Your task to perform on an android device: delete browsing data in the chrome app Image 0: 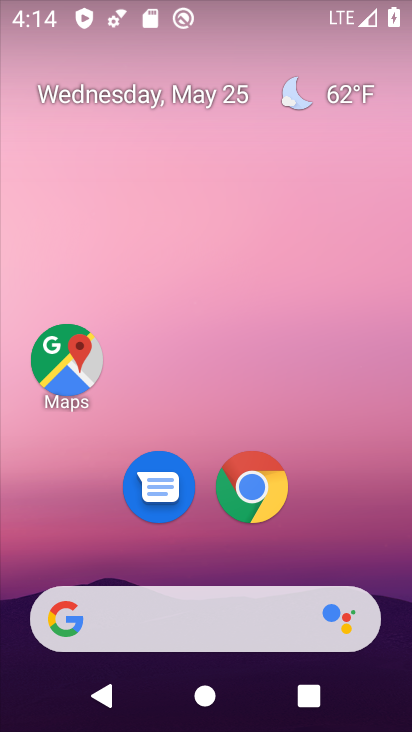
Step 0: click (266, 485)
Your task to perform on an android device: delete browsing data in the chrome app Image 1: 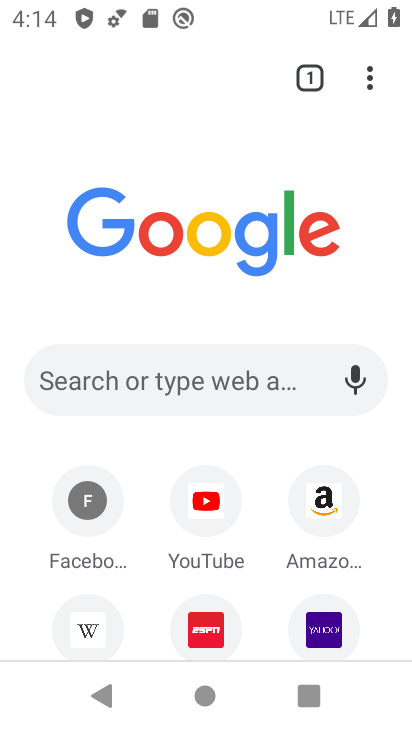
Step 1: click (377, 84)
Your task to perform on an android device: delete browsing data in the chrome app Image 2: 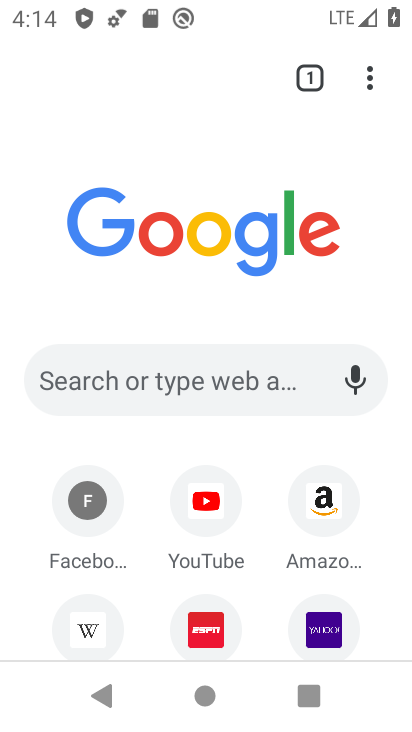
Step 2: click (375, 88)
Your task to perform on an android device: delete browsing data in the chrome app Image 3: 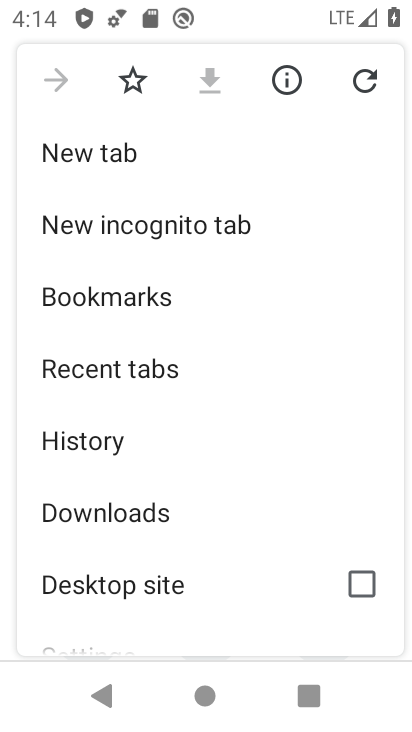
Step 3: click (179, 481)
Your task to perform on an android device: delete browsing data in the chrome app Image 4: 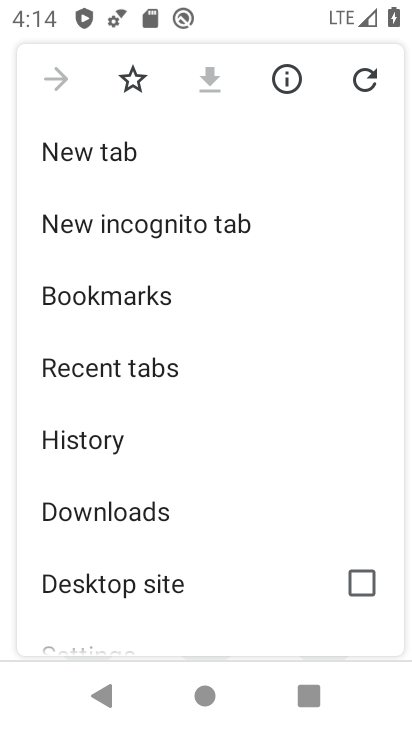
Step 4: click (144, 446)
Your task to perform on an android device: delete browsing data in the chrome app Image 5: 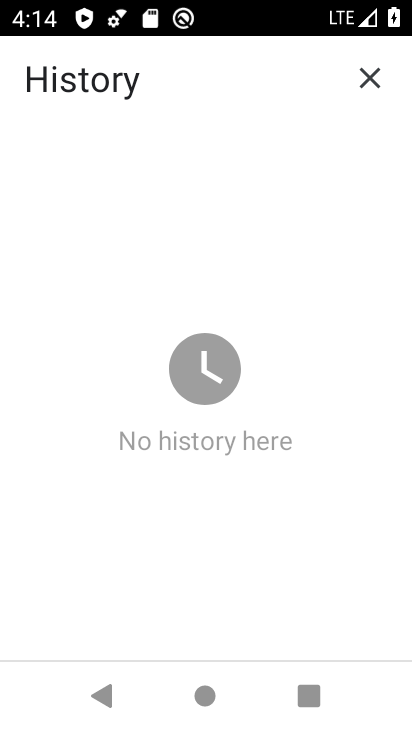
Step 5: task complete